Your task to perform on an android device: set default search engine in the chrome app Image 0: 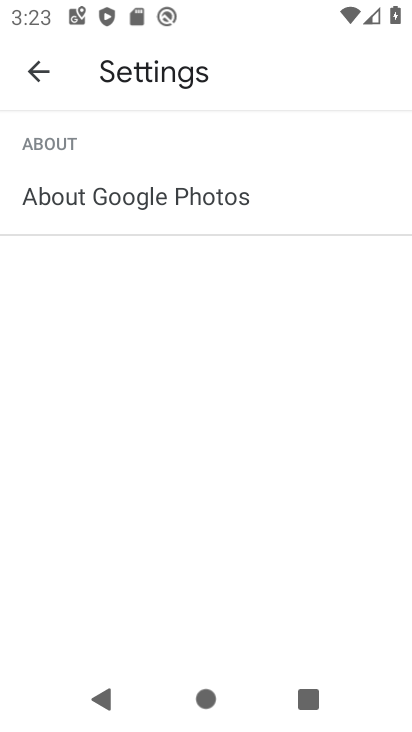
Step 0: press home button
Your task to perform on an android device: set default search engine in the chrome app Image 1: 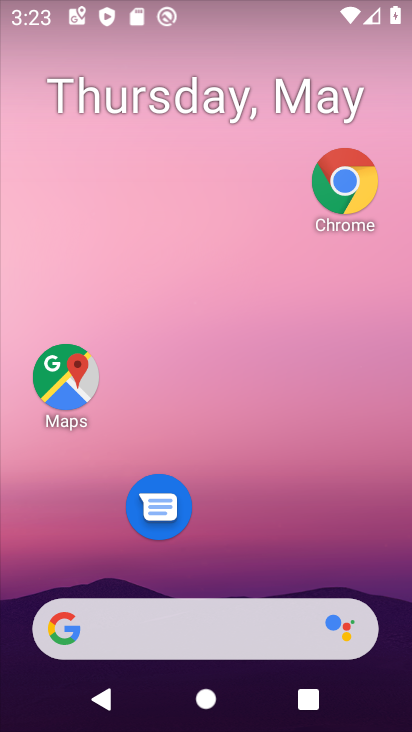
Step 1: drag from (278, 561) to (297, 46)
Your task to perform on an android device: set default search engine in the chrome app Image 2: 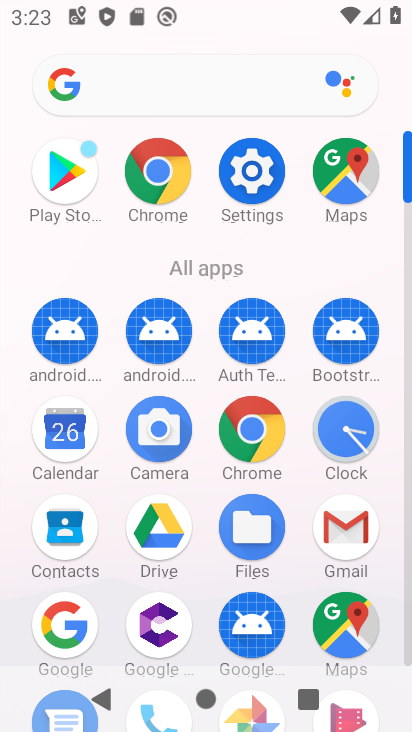
Step 2: click (253, 424)
Your task to perform on an android device: set default search engine in the chrome app Image 3: 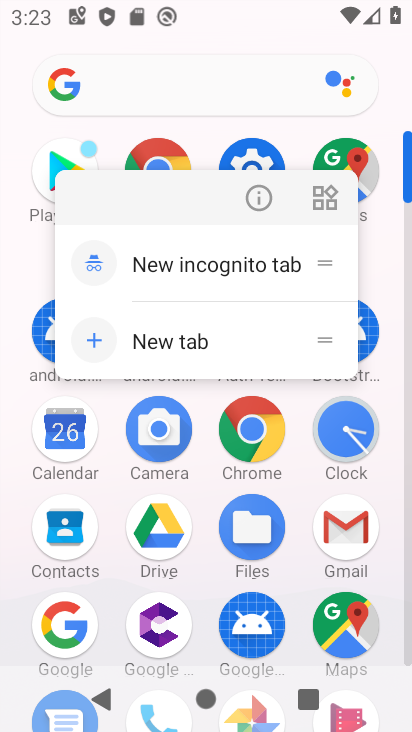
Step 3: click (246, 433)
Your task to perform on an android device: set default search engine in the chrome app Image 4: 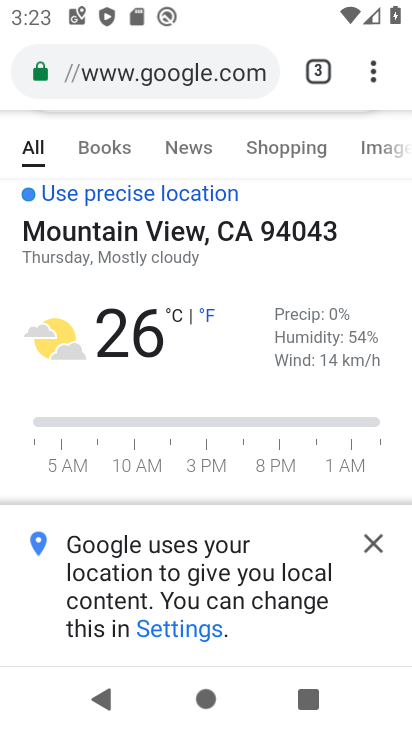
Step 4: drag from (372, 78) to (130, 493)
Your task to perform on an android device: set default search engine in the chrome app Image 5: 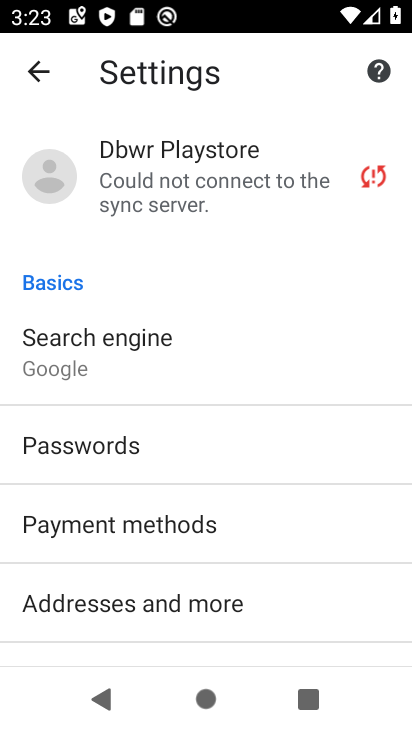
Step 5: drag from (303, 607) to (315, 125)
Your task to perform on an android device: set default search engine in the chrome app Image 6: 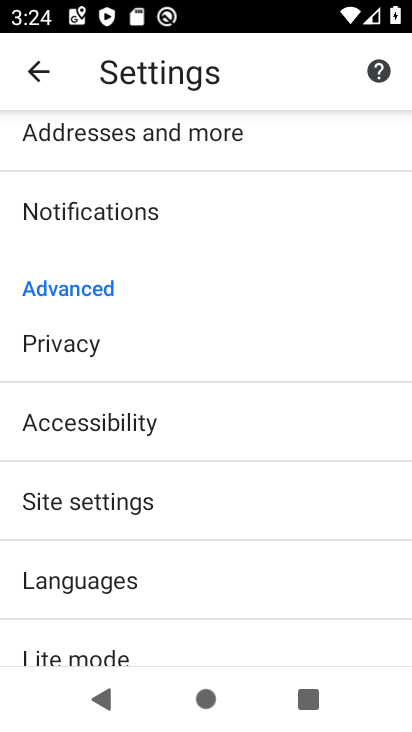
Step 6: drag from (188, 197) to (172, 630)
Your task to perform on an android device: set default search engine in the chrome app Image 7: 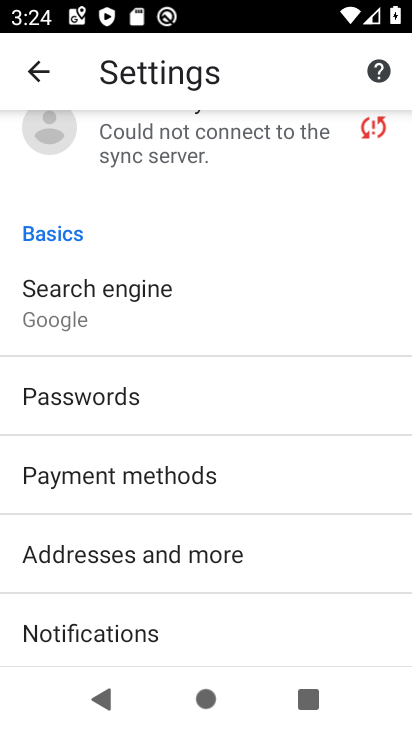
Step 7: click (114, 301)
Your task to perform on an android device: set default search engine in the chrome app Image 8: 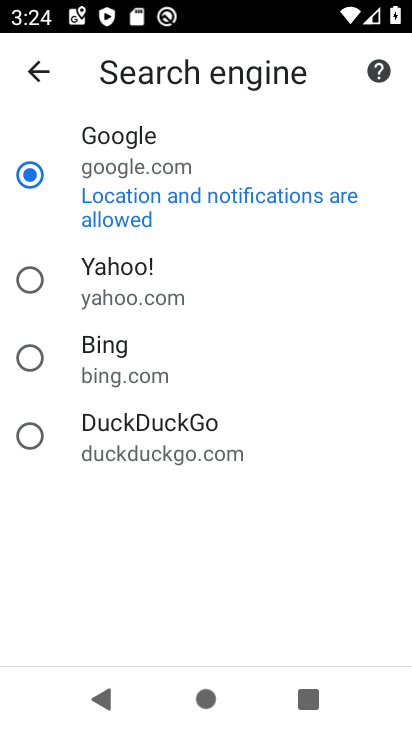
Step 8: task complete